Your task to perform on an android device: toggle airplane mode Image 0: 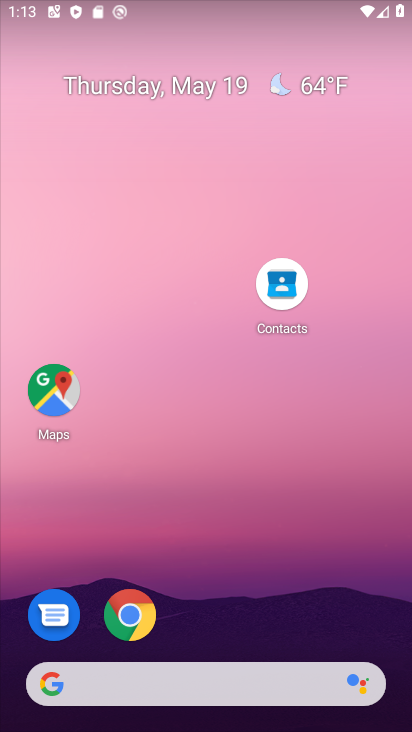
Step 0: drag from (241, 540) to (265, 171)
Your task to perform on an android device: toggle airplane mode Image 1: 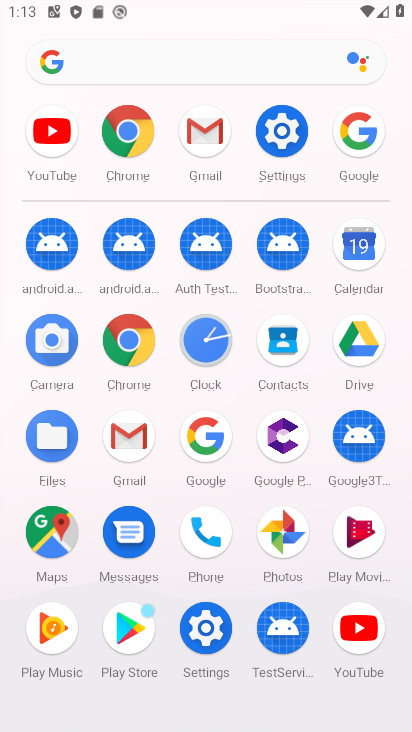
Step 1: click (297, 131)
Your task to perform on an android device: toggle airplane mode Image 2: 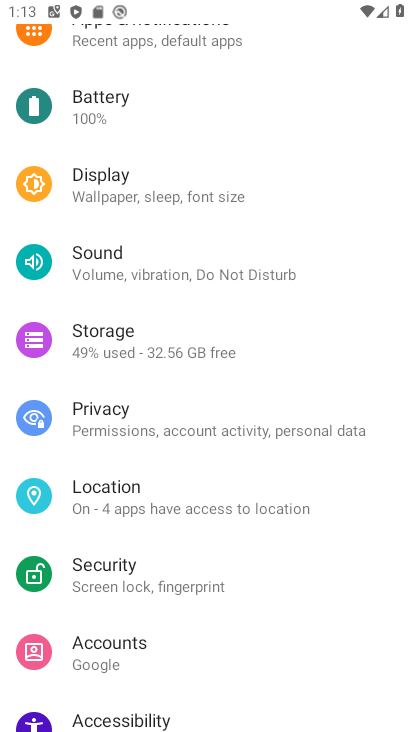
Step 2: drag from (223, 257) to (257, 731)
Your task to perform on an android device: toggle airplane mode Image 3: 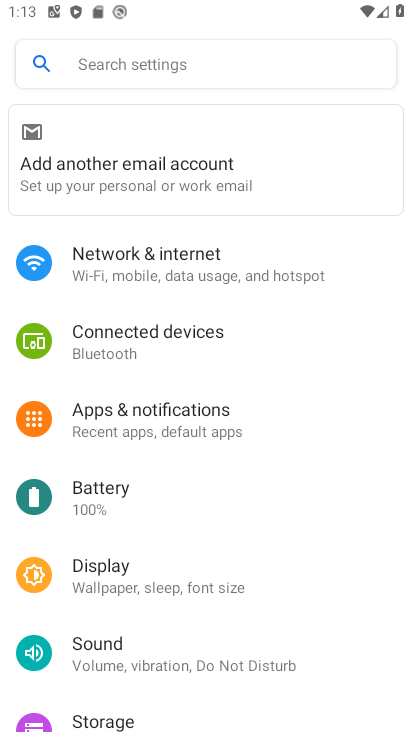
Step 3: click (254, 267)
Your task to perform on an android device: toggle airplane mode Image 4: 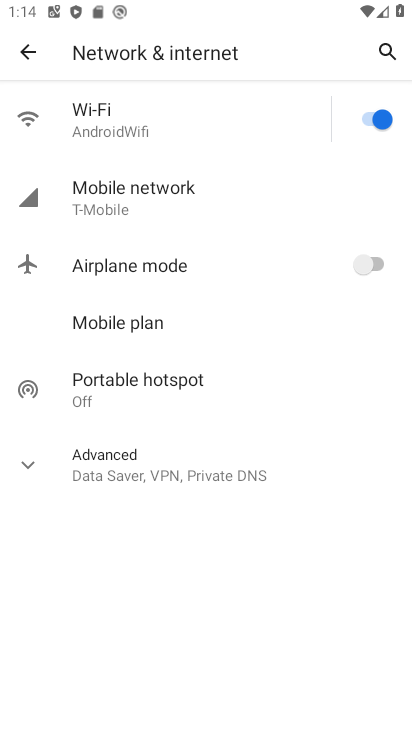
Step 4: click (272, 264)
Your task to perform on an android device: toggle airplane mode Image 5: 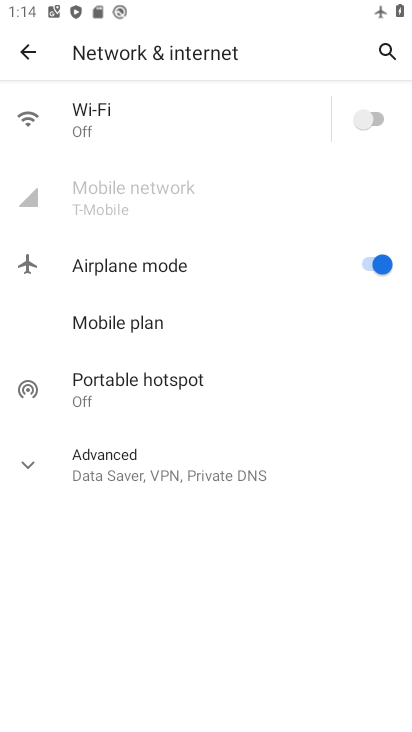
Step 5: task complete